Your task to perform on an android device: allow notifications from all sites in the chrome app Image 0: 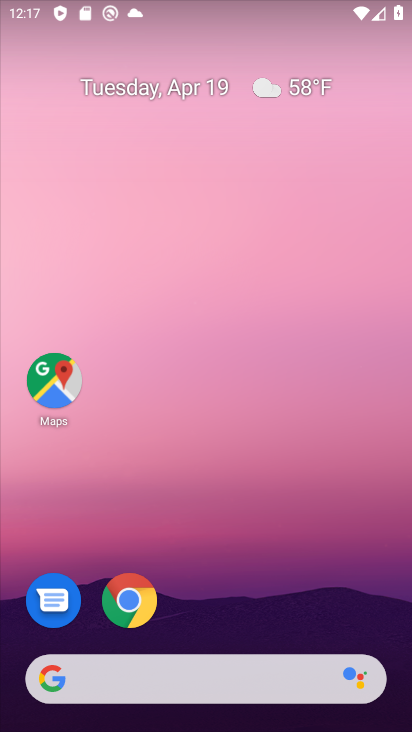
Step 0: drag from (384, 629) to (193, 148)
Your task to perform on an android device: allow notifications from all sites in the chrome app Image 1: 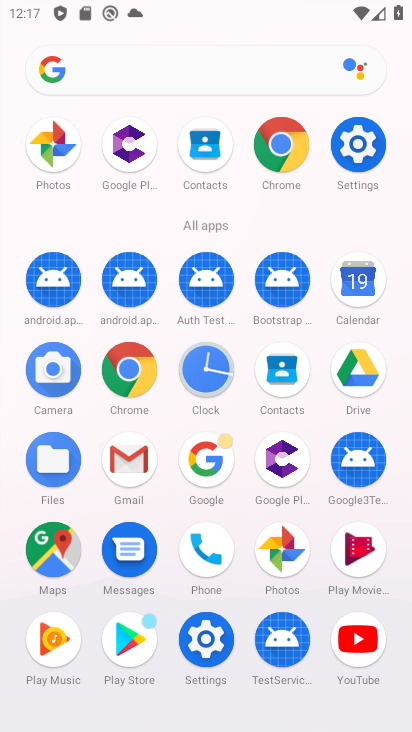
Step 1: click (291, 129)
Your task to perform on an android device: allow notifications from all sites in the chrome app Image 2: 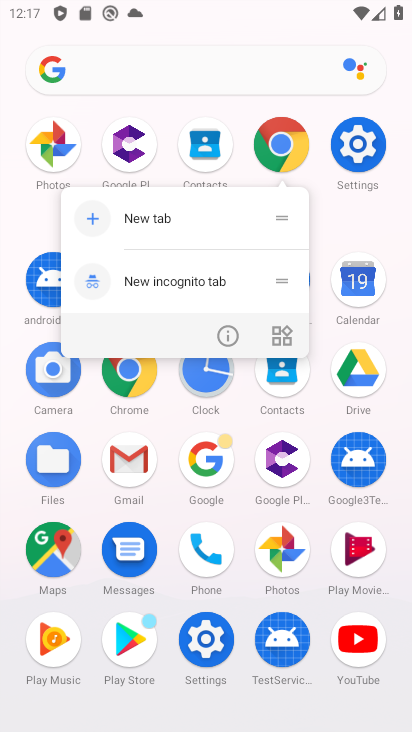
Step 2: click (280, 145)
Your task to perform on an android device: allow notifications from all sites in the chrome app Image 3: 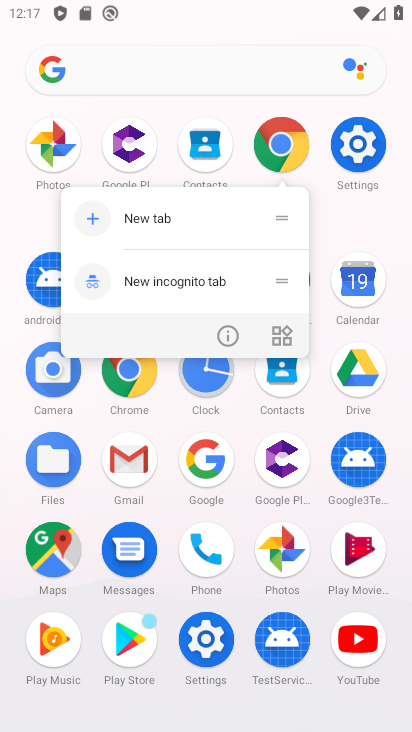
Step 3: click (280, 145)
Your task to perform on an android device: allow notifications from all sites in the chrome app Image 4: 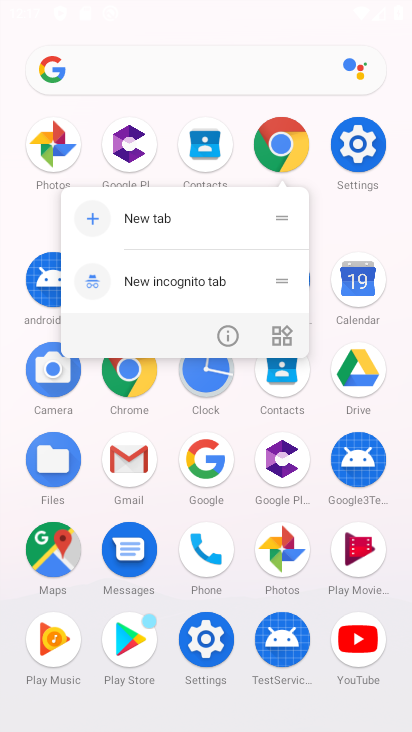
Step 4: click (276, 141)
Your task to perform on an android device: allow notifications from all sites in the chrome app Image 5: 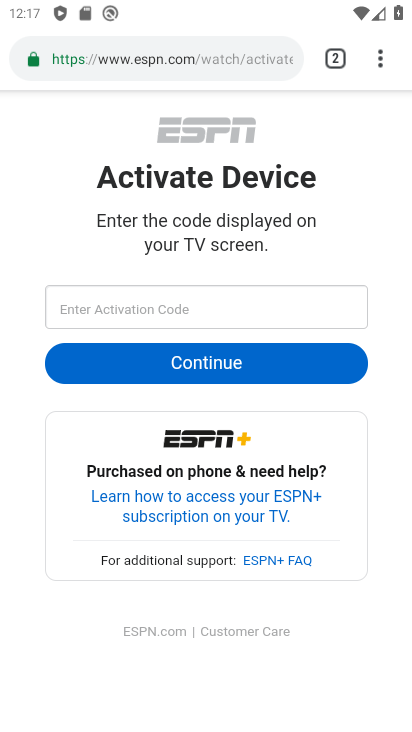
Step 5: click (382, 66)
Your task to perform on an android device: allow notifications from all sites in the chrome app Image 6: 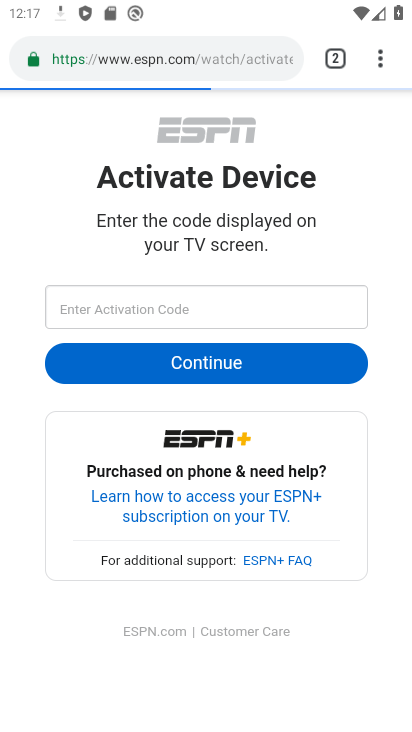
Step 6: drag from (382, 66) to (266, 623)
Your task to perform on an android device: allow notifications from all sites in the chrome app Image 7: 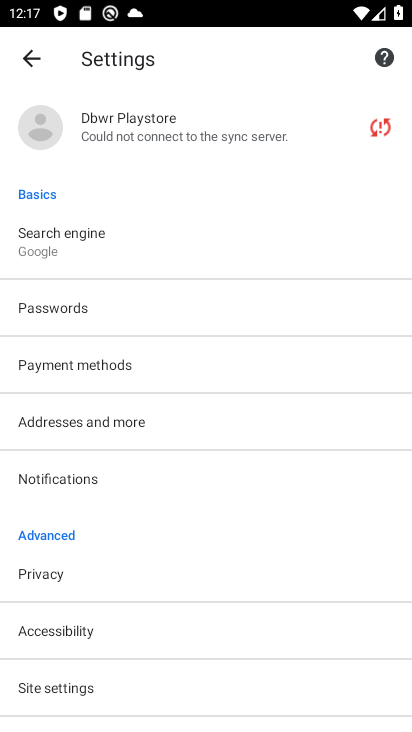
Step 7: drag from (268, 532) to (249, 170)
Your task to perform on an android device: allow notifications from all sites in the chrome app Image 8: 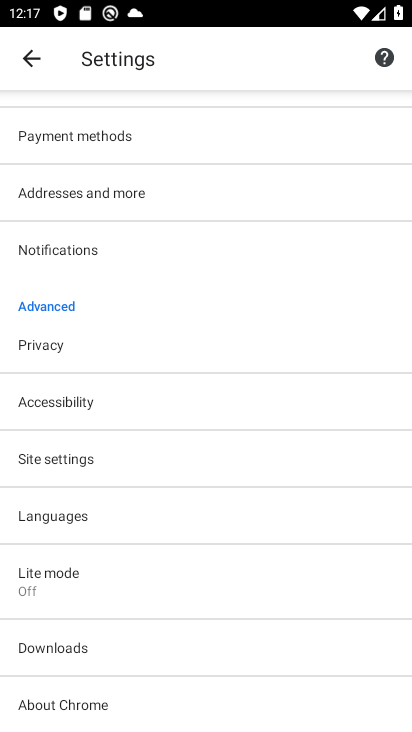
Step 8: click (212, 470)
Your task to perform on an android device: allow notifications from all sites in the chrome app Image 9: 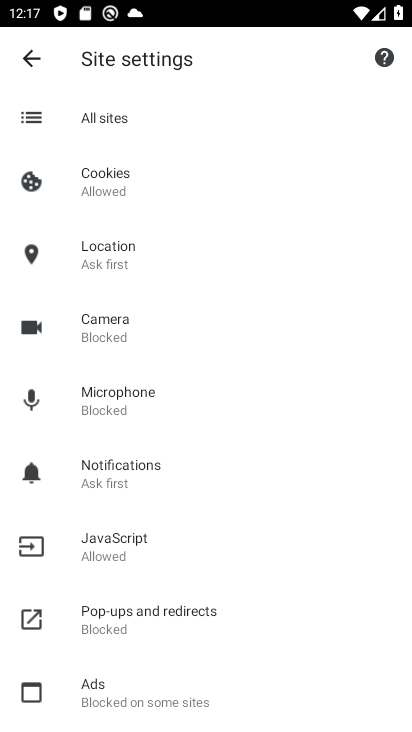
Step 9: click (213, 479)
Your task to perform on an android device: allow notifications from all sites in the chrome app Image 10: 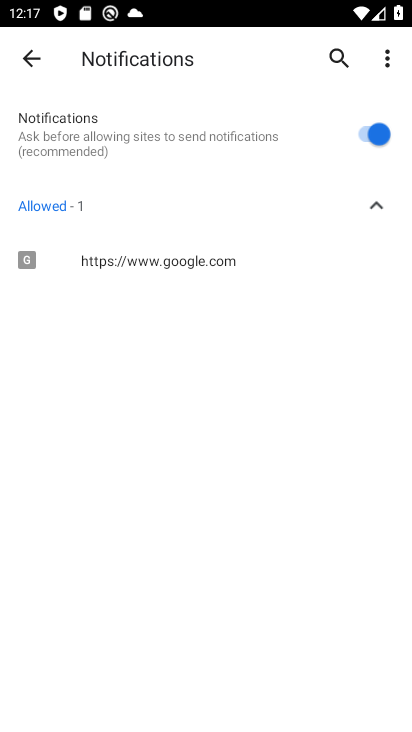
Step 10: task complete